Your task to perform on an android device: Open my contact list Image 0: 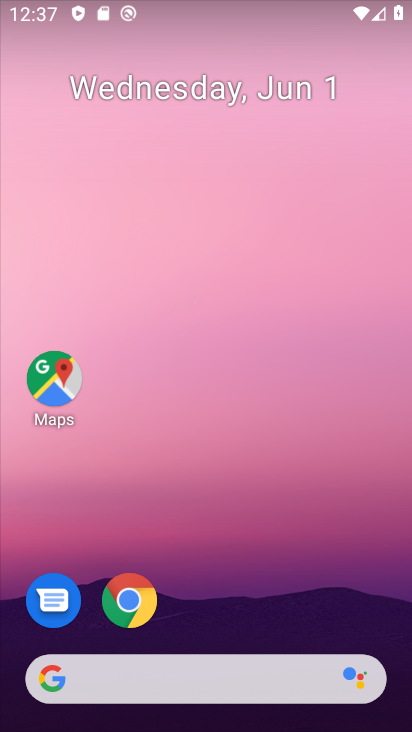
Step 0: drag from (250, 625) to (150, 200)
Your task to perform on an android device: Open my contact list Image 1: 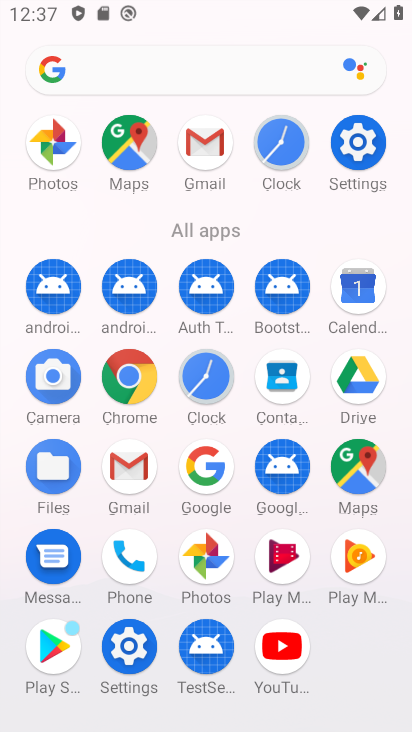
Step 1: click (289, 383)
Your task to perform on an android device: Open my contact list Image 2: 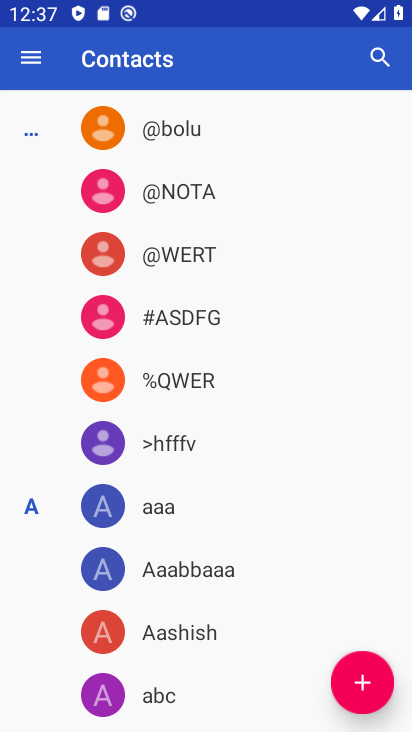
Step 2: task complete